Your task to perform on an android device: turn on translation in the chrome app Image 0: 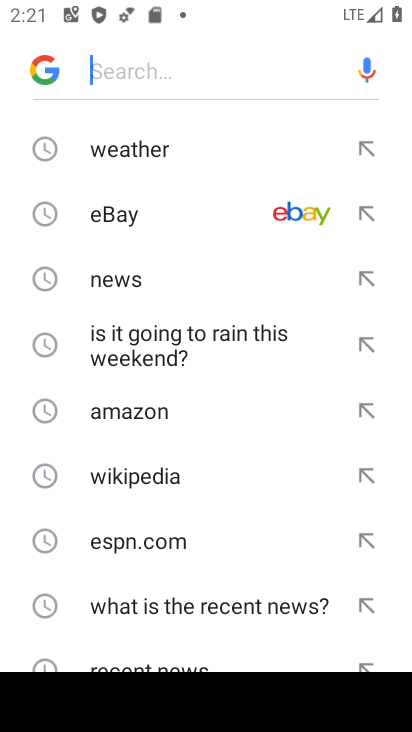
Step 0: press home button
Your task to perform on an android device: turn on translation in the chrome app Image 1: 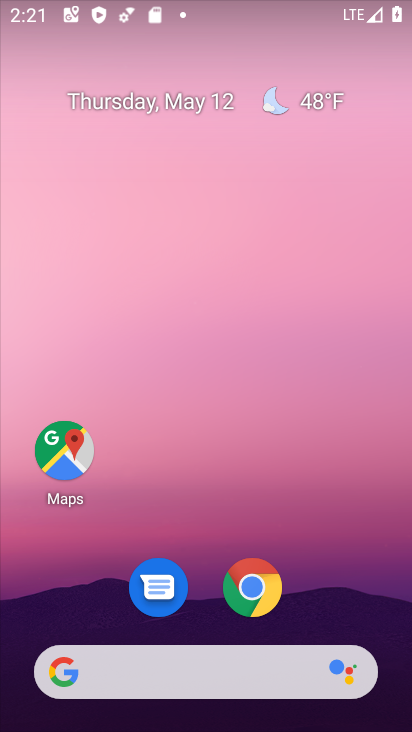
Step 1: click (255, 590)
Your task to perform on an android device: turn on translation in the chrome app Image 2: 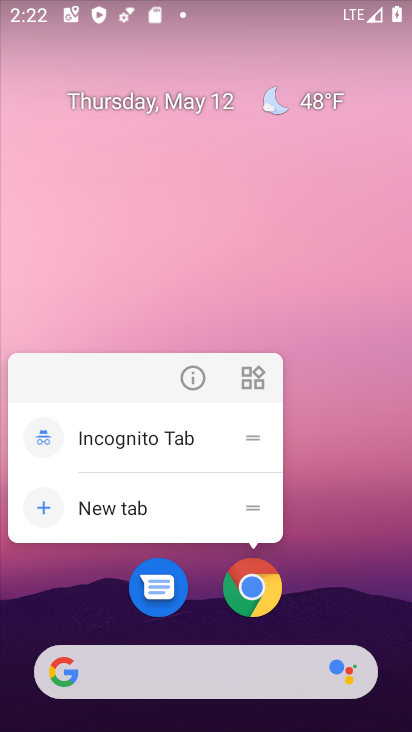
Step 2: click (263, 593)
Your task to perform on an android device: turn on translation in the chrome app Image 3: 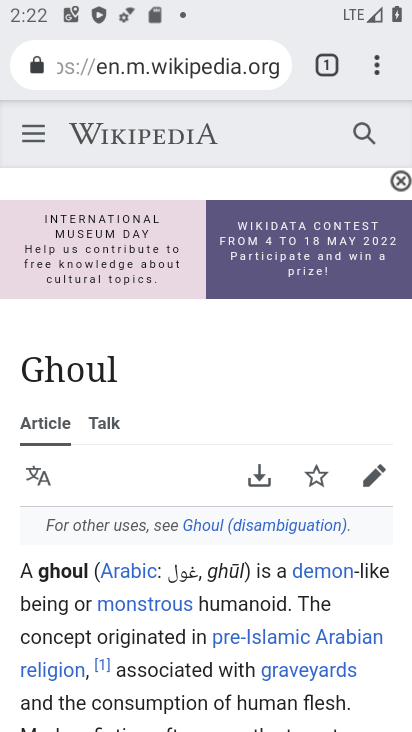
Step 3: click (379, 60)
Your task to perform on an android device: turn on translation in the chrome app Image 4: 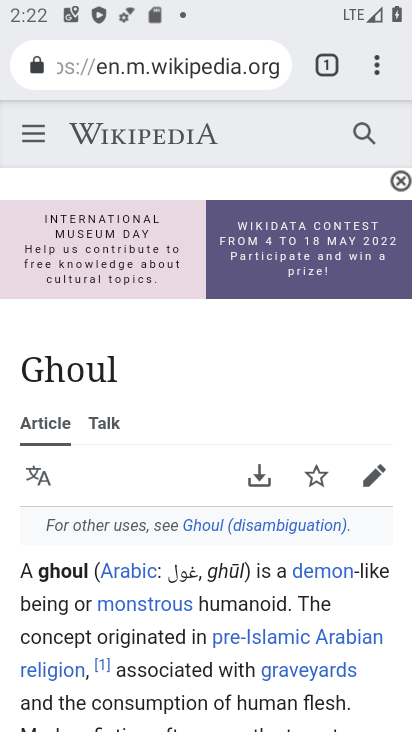
Step 4: click (379, 66)
Your task to perform on an android device: turn on translation in the chrome app Image 5: 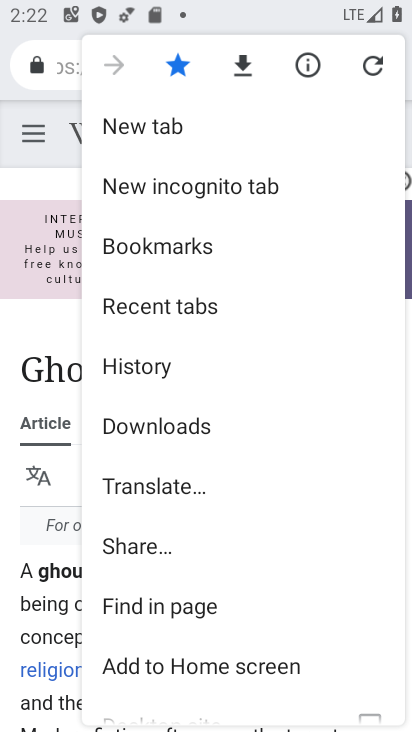
Step 5: click (187, 488)
Your task to perform on an android device: turn on translation in the chrome app Image 6: 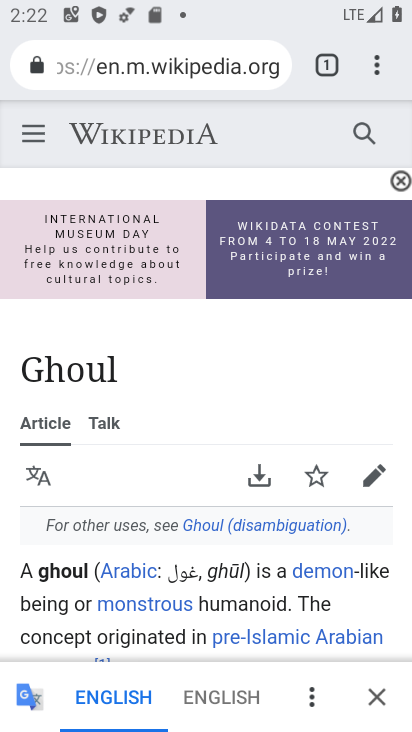
Step 6: click (319, 702)
Your task to perform on an android device: turn on translation in the chrome app Image 7: 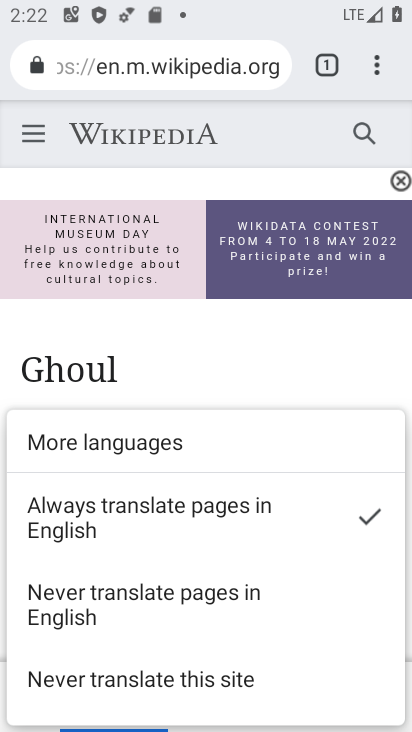
Step 7: task complete